Your task to perform on an android device: Go to Google Image 0: 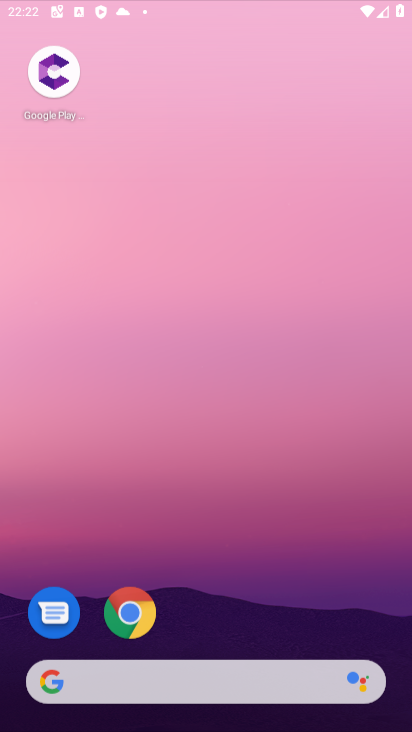
Step 0: drag from (346, 405) to (300, 187)
Your task to perform on an android device: Go to Google Image 1: 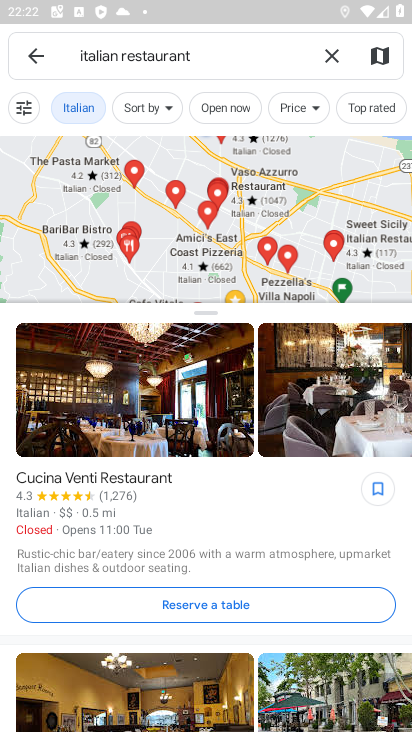
Step 1: press home button
Your task to perform on an android device: Go to Google Image 2: 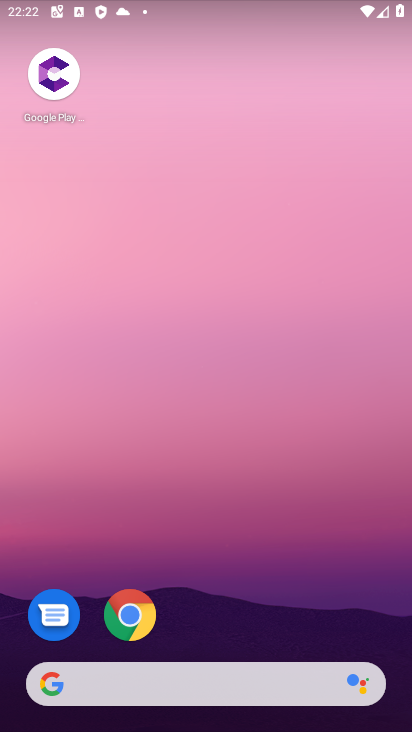
Step 2: drag from (394, 609) to (382, 146)
Your task to perform on an android device: Go to Google Image 3: 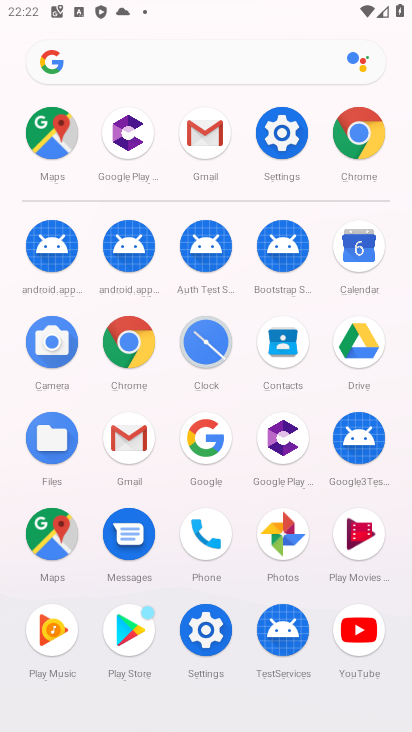
Step 3: click (197, 431)
Your task to perform on an android device: Go to Google Image 4: 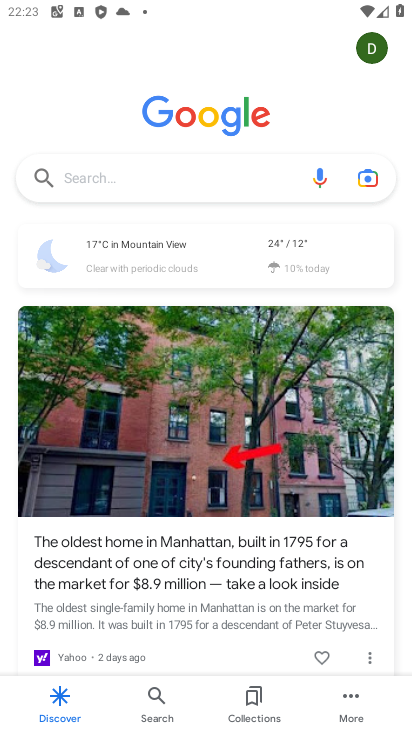
Step 4: task complete